Your task to perform on an android device: open a bookmark in the chrome app Image 0: 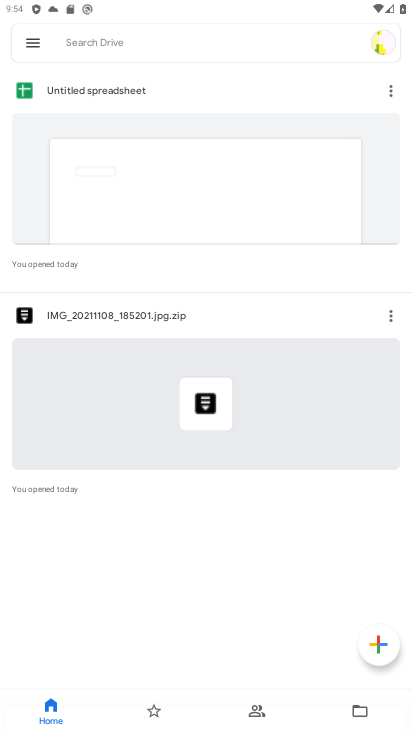
Step 0: press home button
Your task to perform on an android device: open a bookmark in the chrome app Image 1: 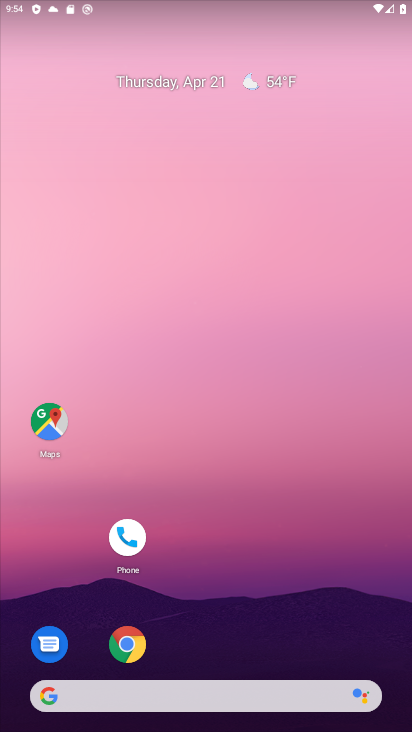
Step 1: drag from (270, 656) to (260, 149)
Your task to perform on an android device: open a bookmark in the chrome app Image 2: 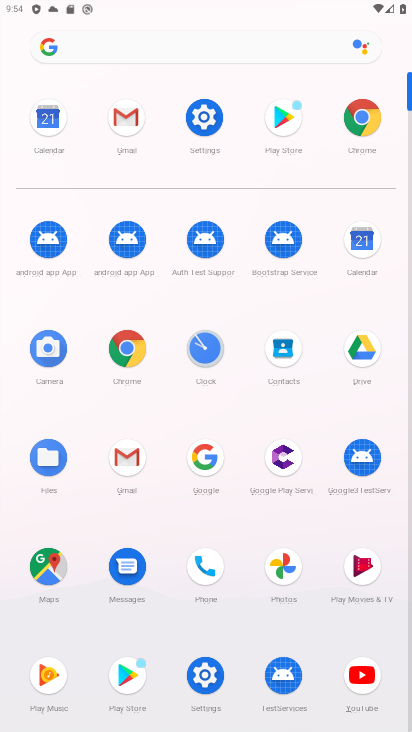
Step 2: click (132, 354)
Your task to perform on an android device: open a bookmark in the chrome app Image 3: 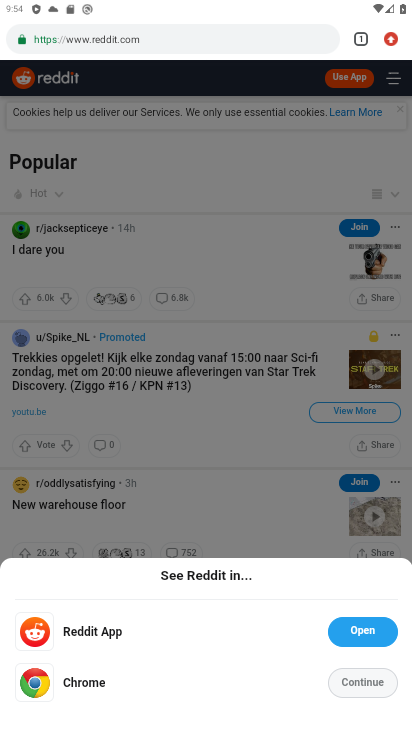
Step 3: drag from (404, 35) to (263, 181)
Your task to perform on an android device: open a bookmark in the chrome app Image 4: 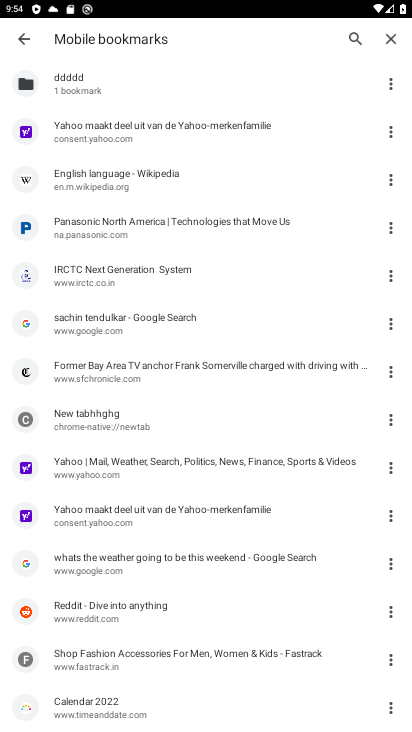
Step 4: click (209, 122)
Your task to perform on an android device: open a bookmark in the chrome app Image 5: 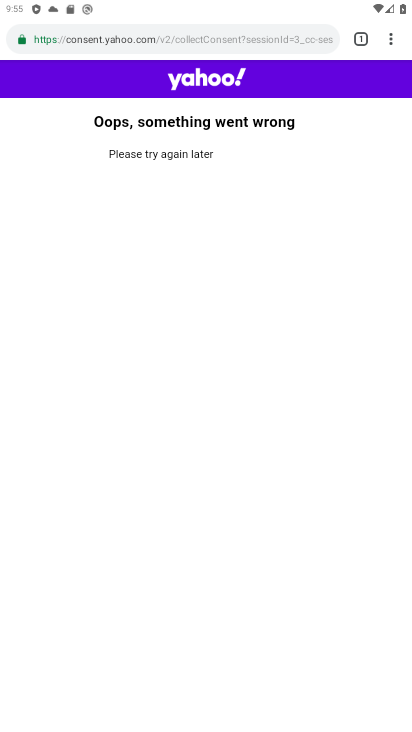
Step 5: task complete